Your task to perform on an android device: View the shopping cart on walmart.com. Add "rayovac triple a" to the cart on walmart.com Image 0: 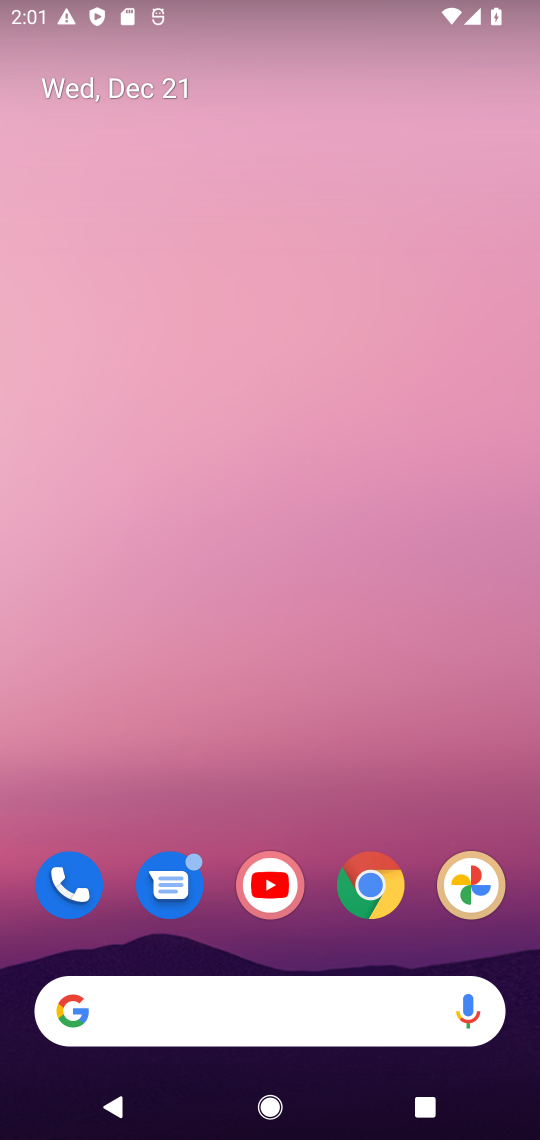
Step 0: drag from (196, 994) to (246, 192)
Your task to perform on an android device: View the shopping cart on walmart.com. Add "rayovac triple a" to the cart on walmart.com Image 1: 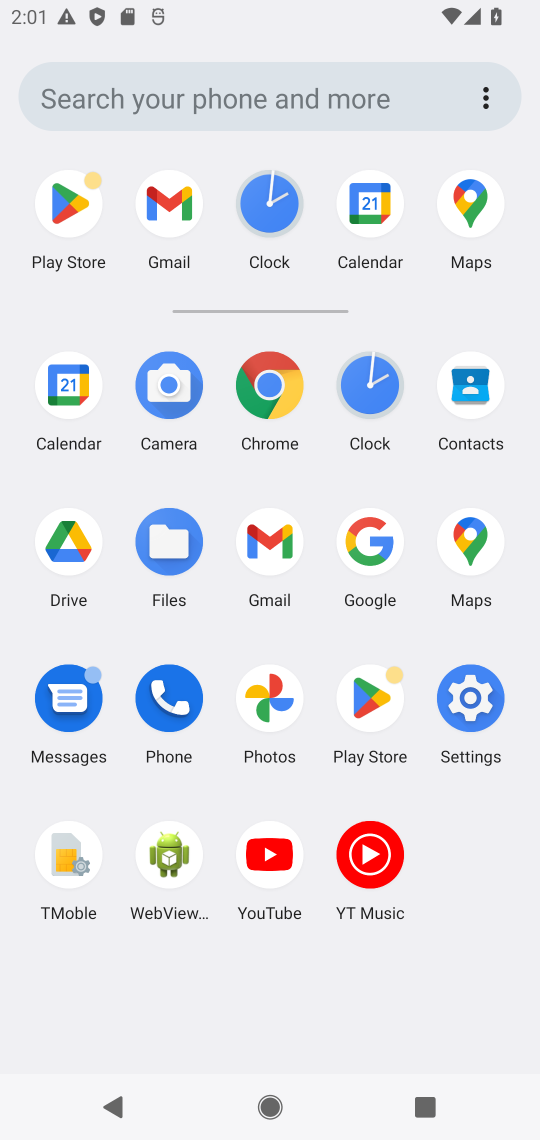
Step 1: click (367, 550)
Your task to perform on an android device: View the shopping cart on walmart.com. Add "rayovac triple a" to the cart on walmart.com Image 2: 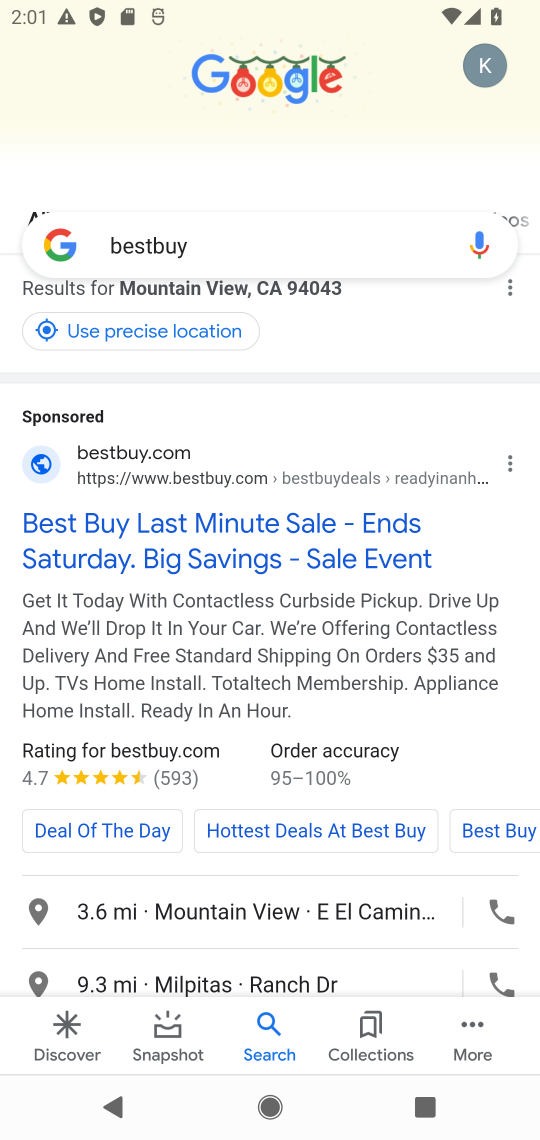
Step 2: click (144, 250)
Your task to perform on an android device: View the shopping cart on walmart.com. Add "rayovac triple a" to the cart on walmart.com Image 3: 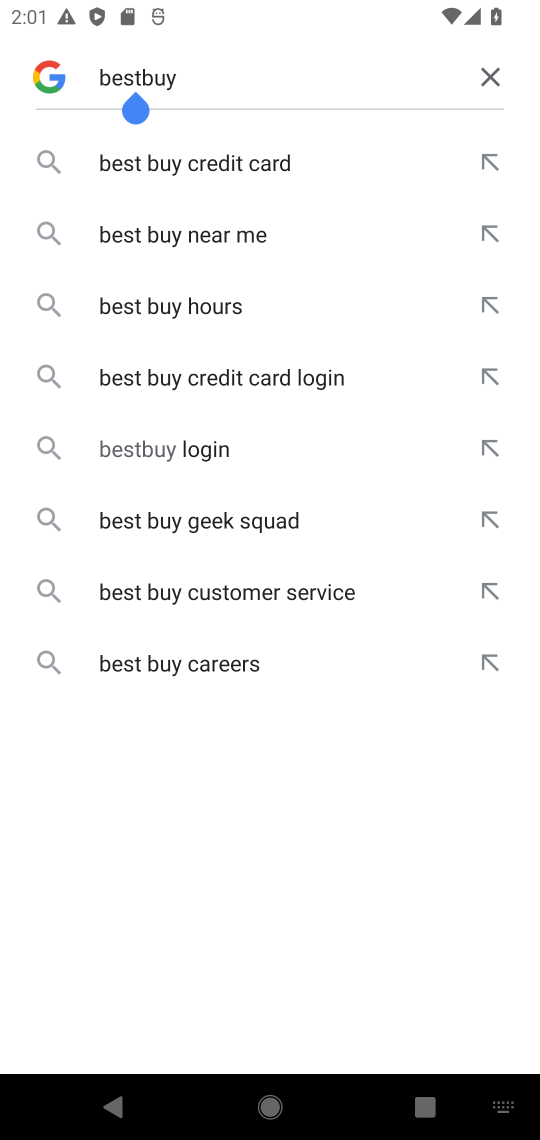
Step 3: click (482, 73)
Your task to perform on an android device: View the shopping cart on walmart.com. Add "rayovac triple a" to the cart on walmart.com Image 4: 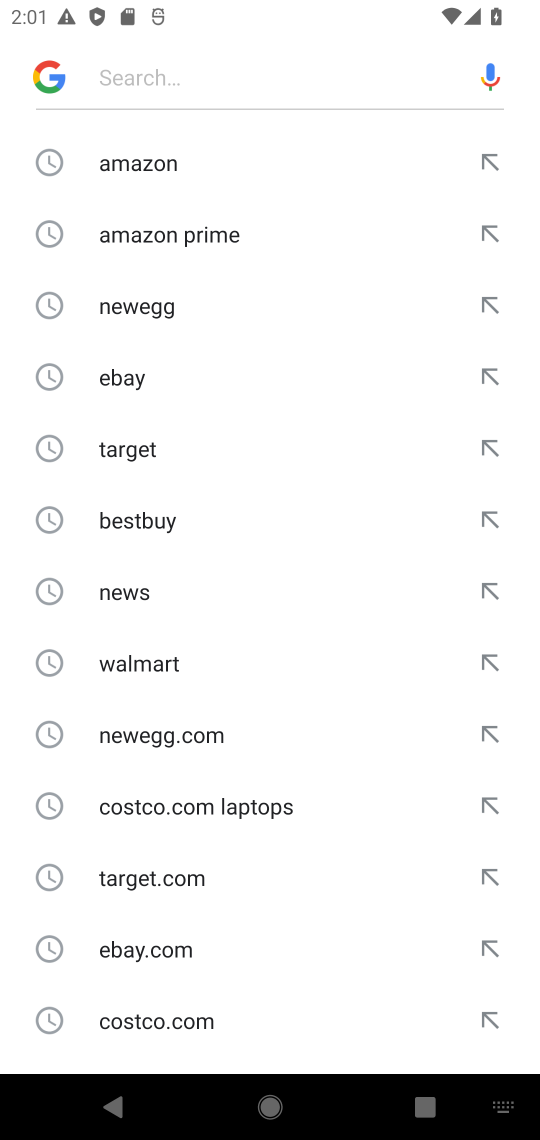
Step 4: click (133, 660)
Your task to perform on an android device: View the shopping cart on walmart.com. Add "rayovac triple a" to the cart on walmart.com Image 5: 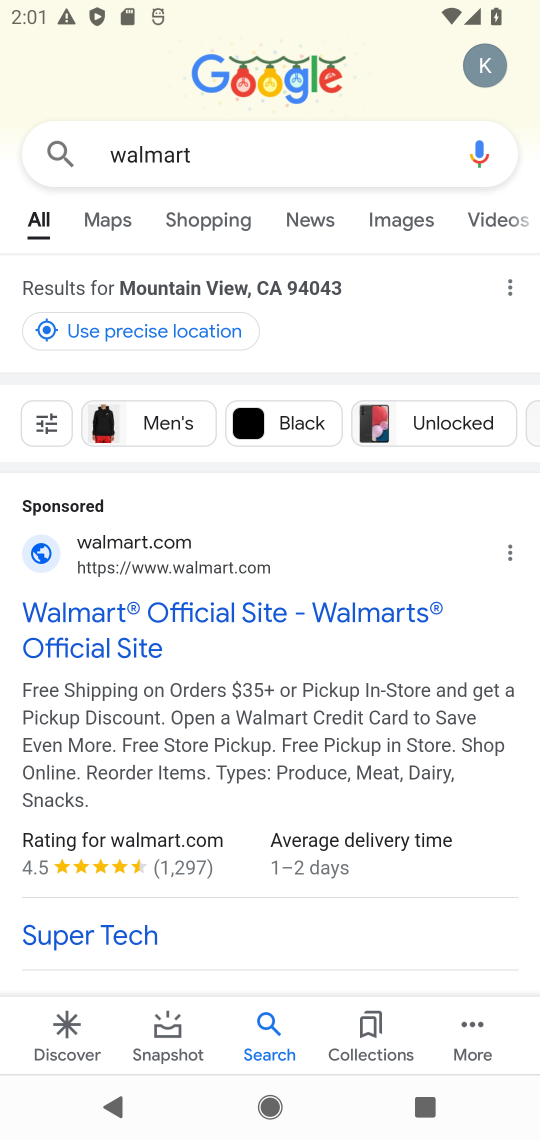
Step 5: click (152, 636)
Your task to perform on an android device: View the shopping cart on walmart.com. Add "rayovac triple a" to the cart on walmart.com Image 6: 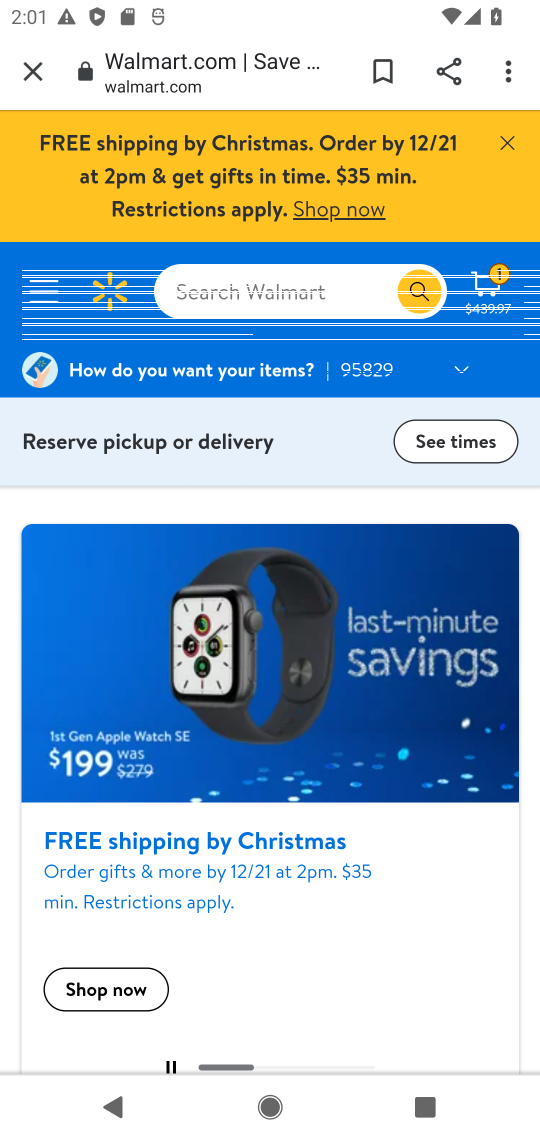
Step 6: click (213, 285)
Your task to perform on an android device: View the shopping cart on walmart.com. Add "rayovac triple a" to the cart on walmart.com Image 7: 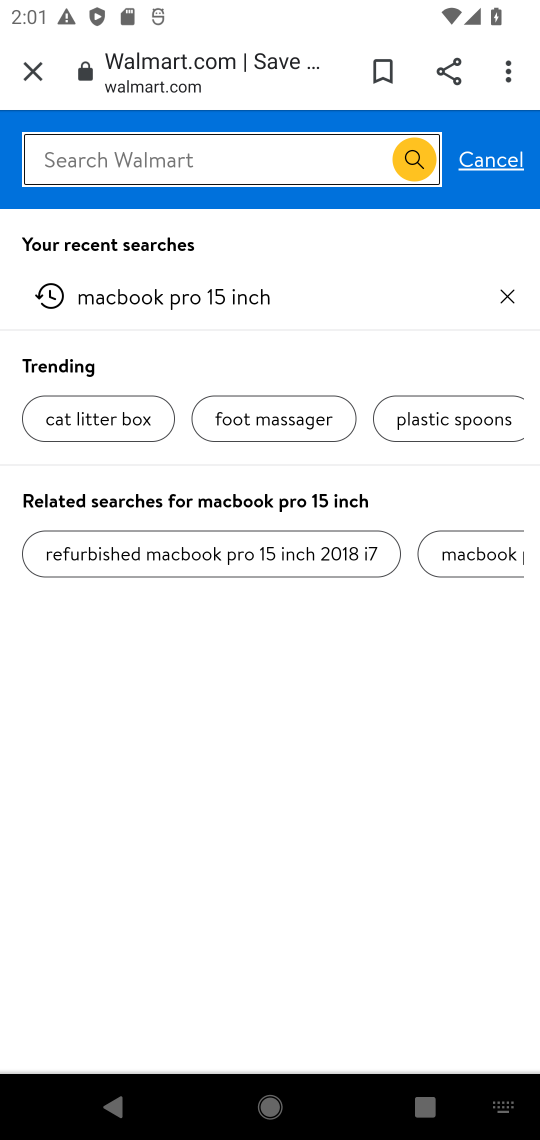
Step 7: type "rayovac triple a"
Your task to perform on an android device: View the shopping cart on walmart.com. Add "rayovac triple a" to the cart on walmart.com Image 8: 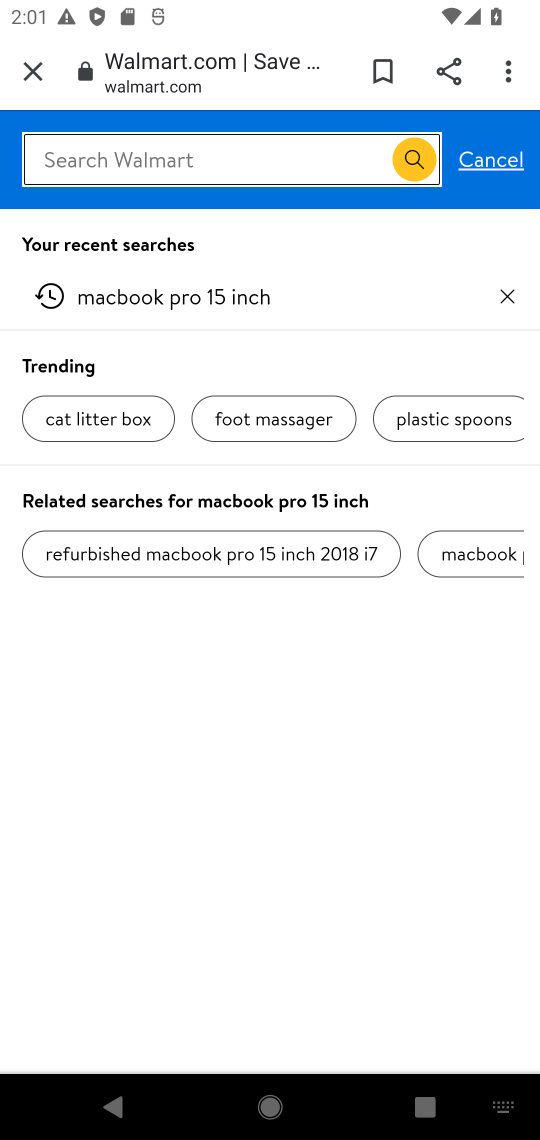
Step 8: click (426, 156)
Your task to perform on an android device: View the shopping cart on walmart.com. Add "rayovac triple a" to the cart on walmart.com Image 9: 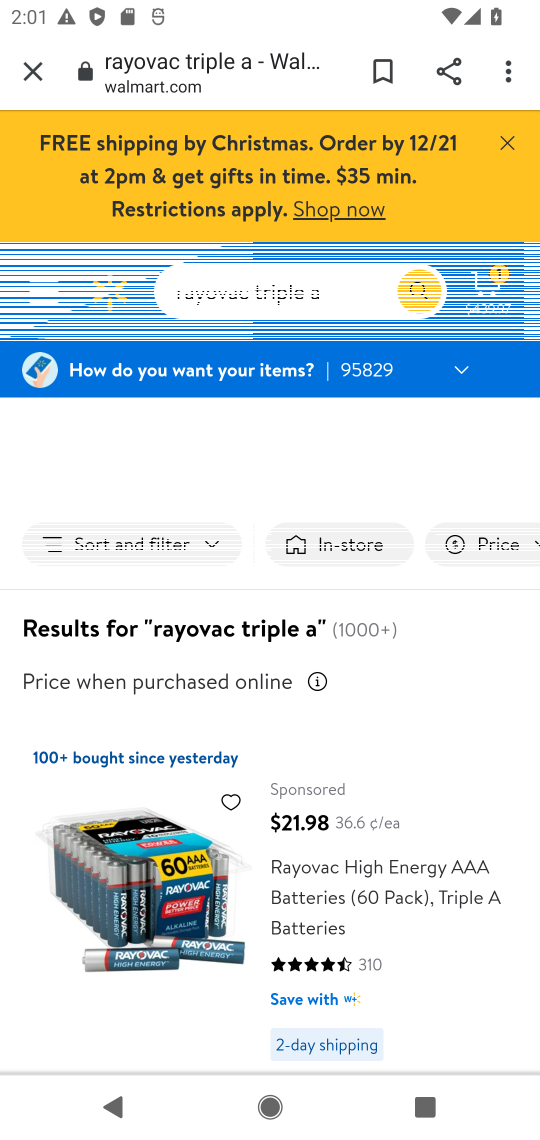
Step 9: drag from (399, 964) to (404, 514)
Your task to perform on an android device: View the shopping cart on walmart.com. Add "rayovac triple a" to the cart on walmart.com Image 10: 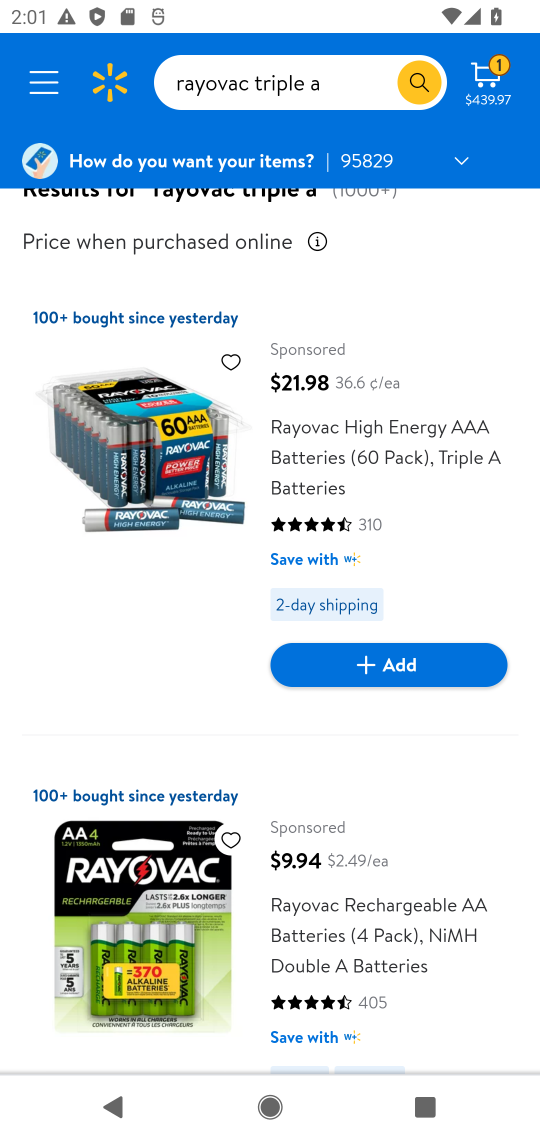
Step 10: click (364, 674)
Your task to perform on an android device: View the shopping cart on walmart.com. Add "rayovac triple a" to the cart on walmart.com Image 11: 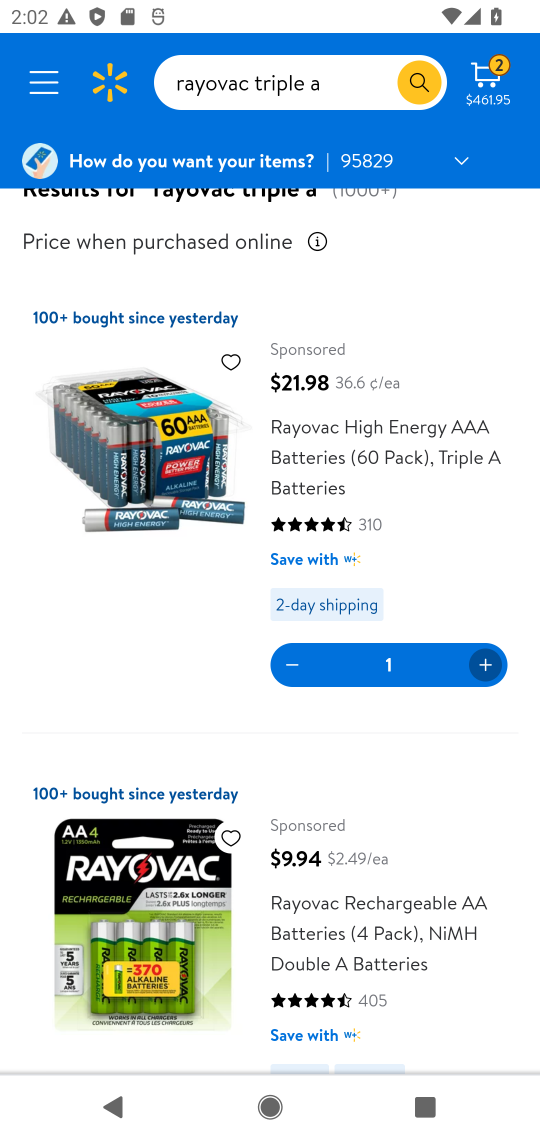
Step 11: task complete